Your task to perform on an android device: What's the weather going to be tomorrow? Image 0: 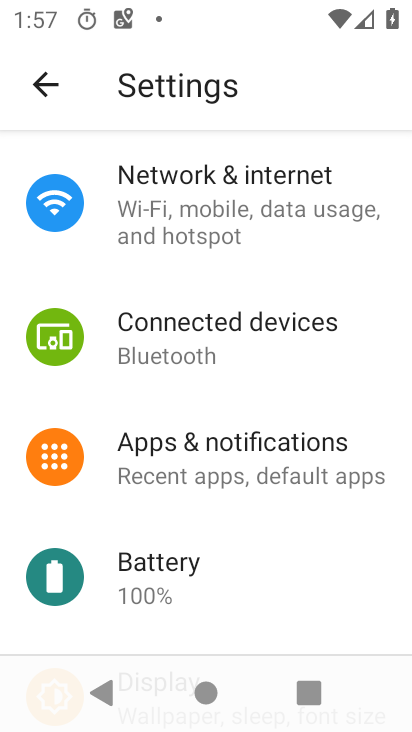
Step 0: press home button
Your task to perform on an android device: What's the weather going to be tomorrow? Image 1: 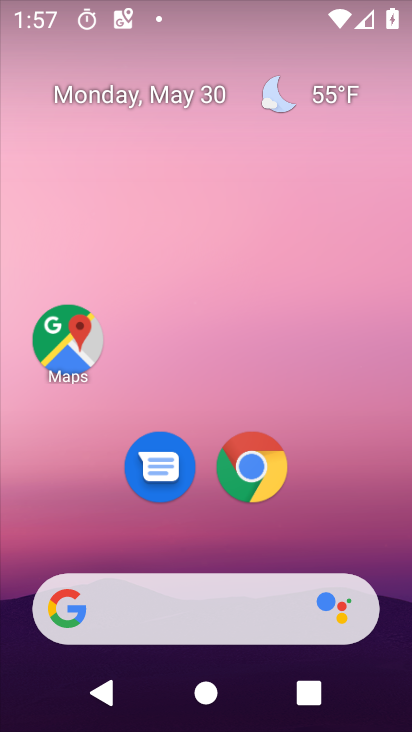
Step 1: click (330, 93)
Your task to perform on an android device: What's the weather going to be tomorrow? Image 2: 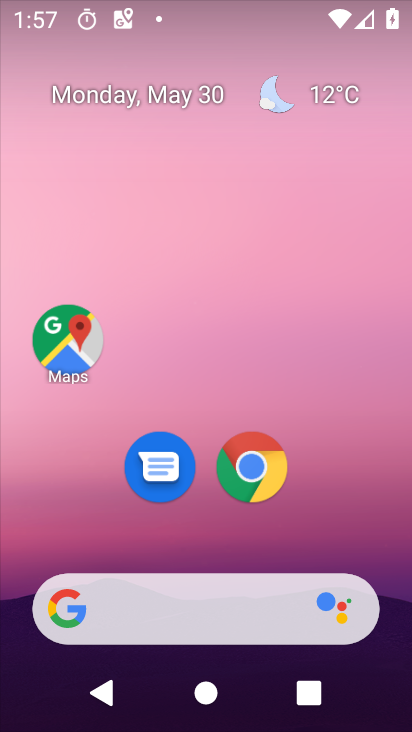
Step 2: click (330, 93)
Your task to perform on an android device: What's the weather going to be tomorrow? Image 3: 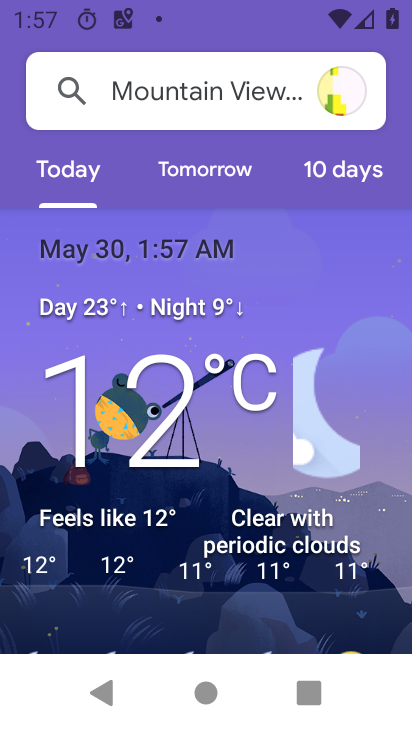
Step 3: click (194, 179)
Your task to perform on an android device: What's the weather going to be tomorrow? Image 4: 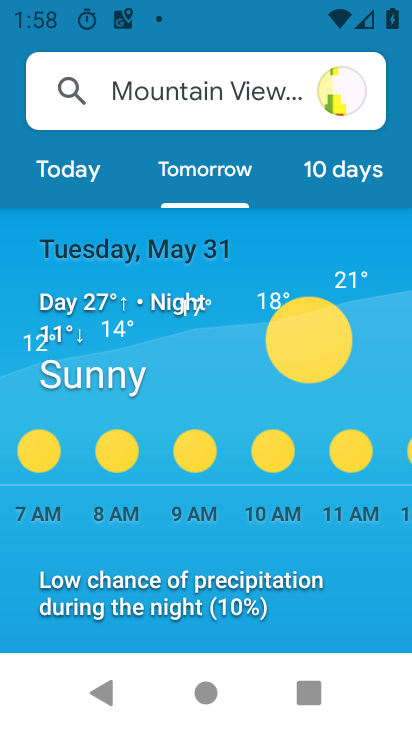
Step 4: task complete